Your task to perform on an android device: What's the weather going to be this weekend? Image 0: 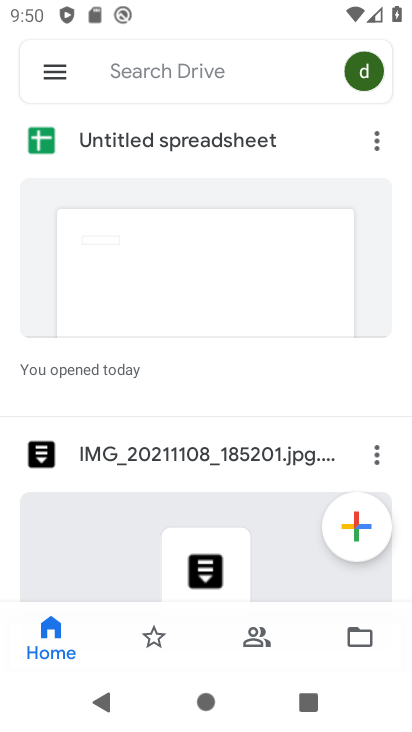
Step 0: press home button
Your task to perform on an android device: What's the weather going to be this weekend? Image 1: 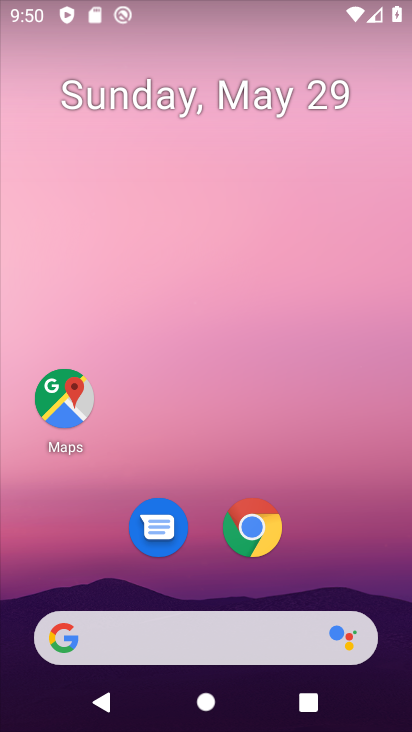
Step 1: click (254, 533)
Your task to perform on an android device: What's the weather going to be this weekend? Image 2: 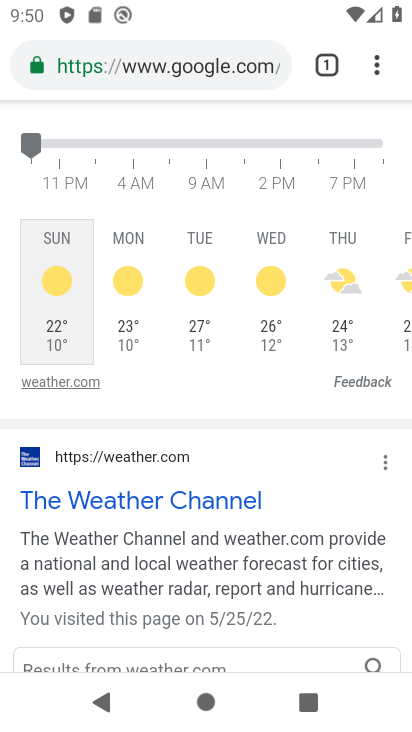
Step 2: task complete